Your task to perform on an android device: choose inbox layout in the gmail app Image 0: 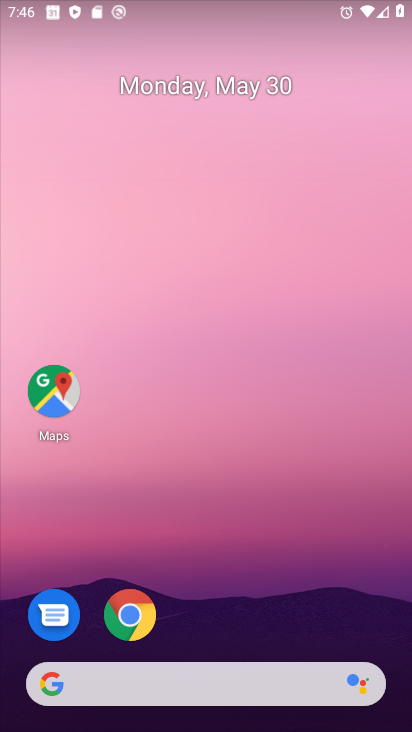
Step 0: drag from (318, 480) to (195, 11)
Your task to perform on an android device: choose inbox layout in the gmail app Image 1: 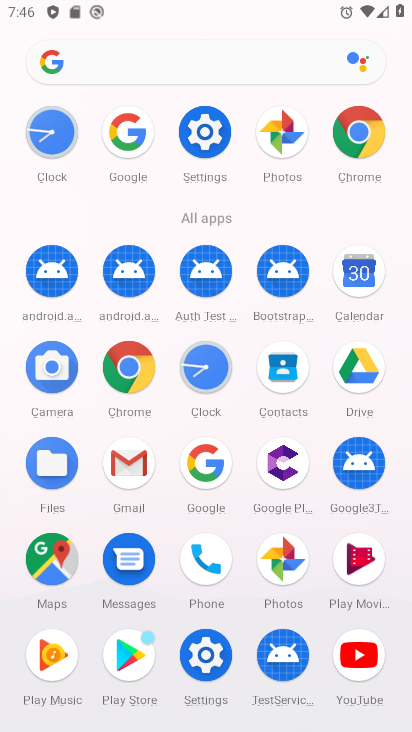
Step 1: click (150, 467)
Your task to perform on an android device: choose inbox layout in the gmail app Image 2: 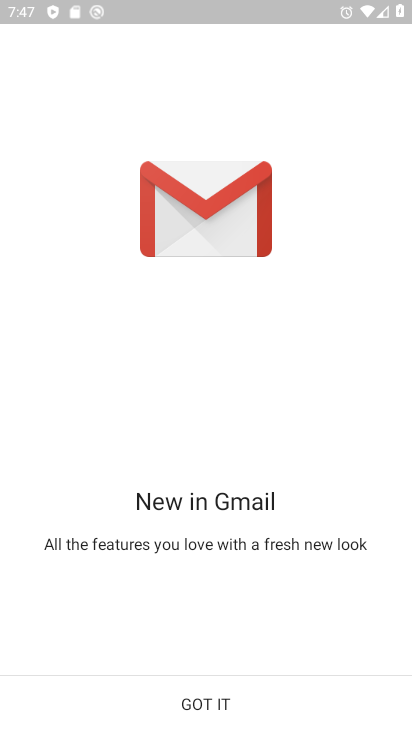
Step 2: click (211, 688)
Your task to perform on an android device: choose inbox layout in the gmail app Image 3: 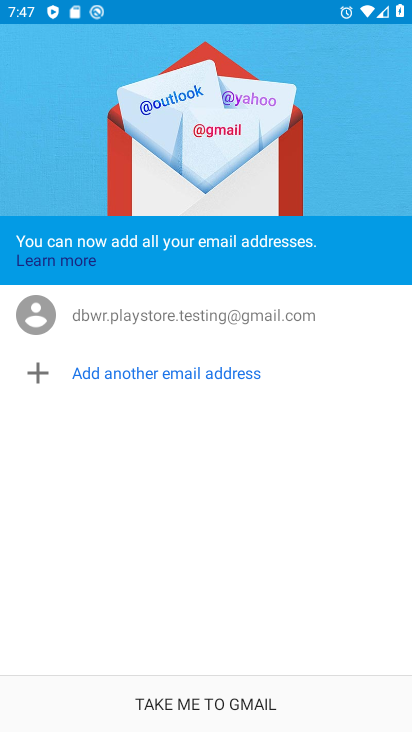
Step 3: click (211, 687)
Your task to perform on an android device: choose inbox layout in the gmail app Image 4: 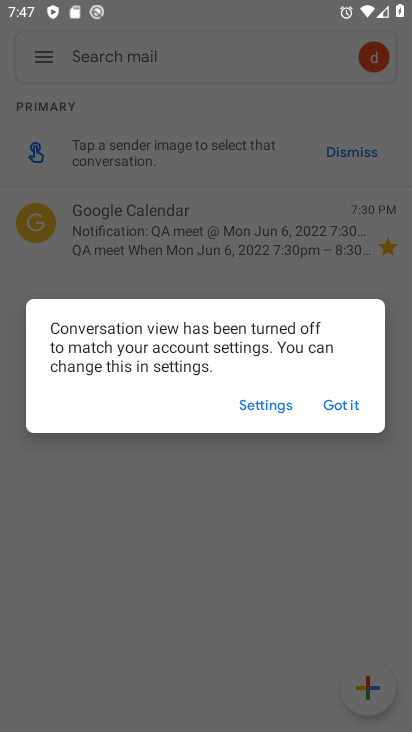
Step 4: click (333, 407)
Your task to perform on an android device: choose inbox layout in the gmail app Image 5: 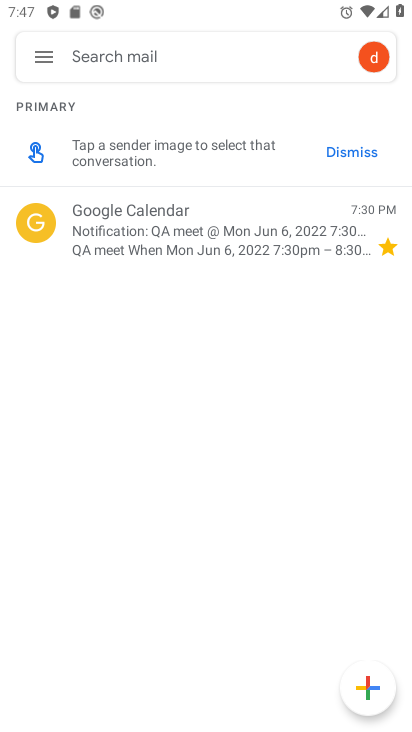
Step 5: click (48, 57)
Your task to perform on an android device: choose inbox layout in the gmail app Image 6: 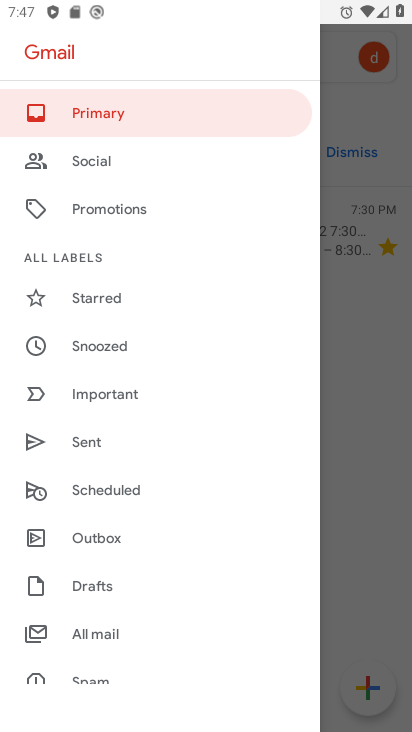
Step 6: drag from (188, 549) to (266, 157)
Your task to perform on an android device: choose inbox layout in the gmail app Image 7: 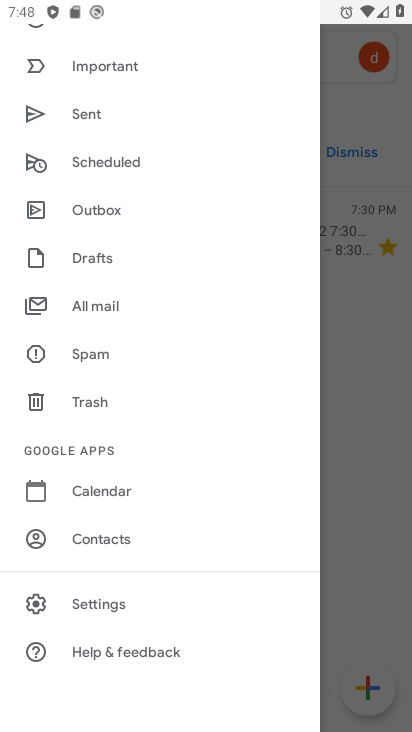
Step 7: drag from (121, 542) to (125, 155)
Your task to perform on an android device: choose inbox layout in the gmail app Image 8: 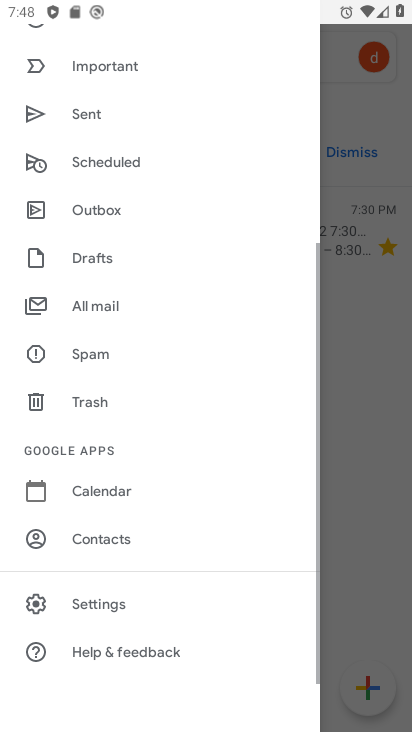
Step 8: click (104, 594)
Your task to perform on an android device: choose inbox layout in the gmail app Image 9: 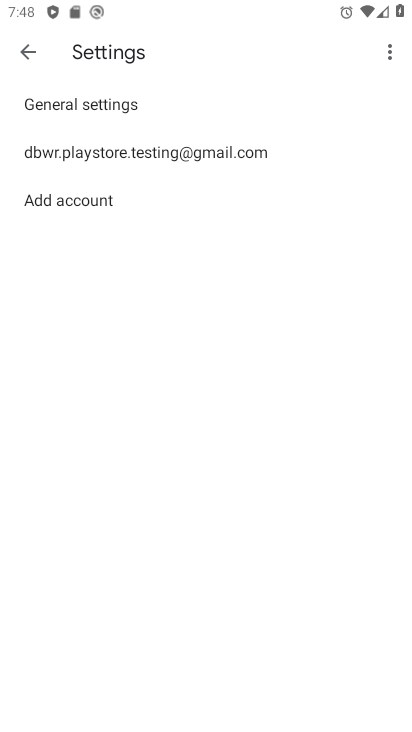
Step 9: click (128, 145)
Your task to perform on an android device: choose inbox layout in the gmail app Image 10: 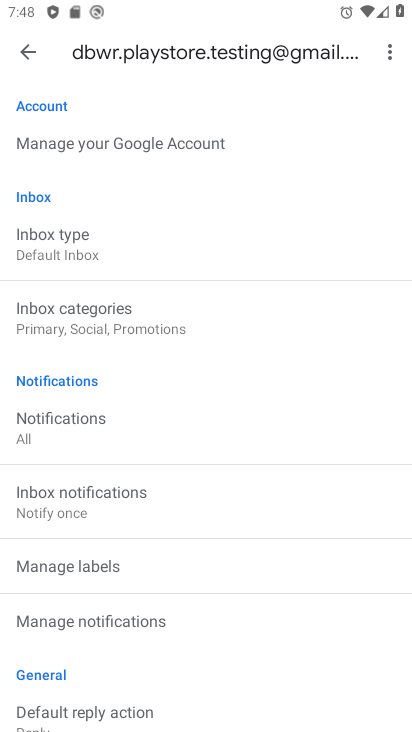
Step 10: click (25, 233)
Your task to perform on an android device: choose inbox layout in the gmail app Image 11: 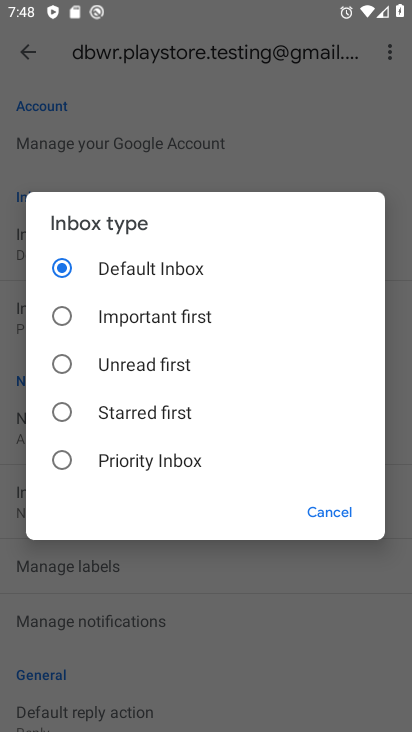
Step 11: click (104, 331)
Your task to perform on an android device: choose inbox layout in the gmail app Image 12: 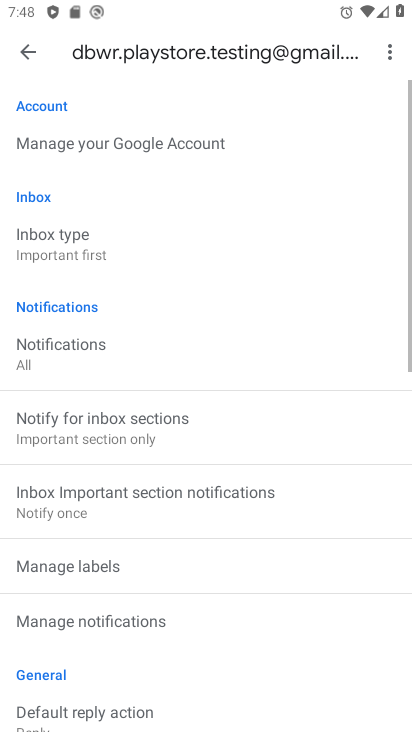
Step 12: task complete